Your task to perform on an android device: turn off wifi Image 0: 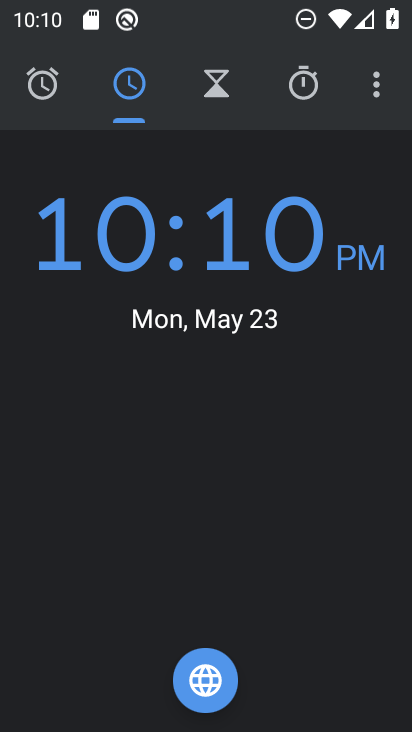
Step 0: press home button
Your task to perform on an android device: turn off wifi Image 1: 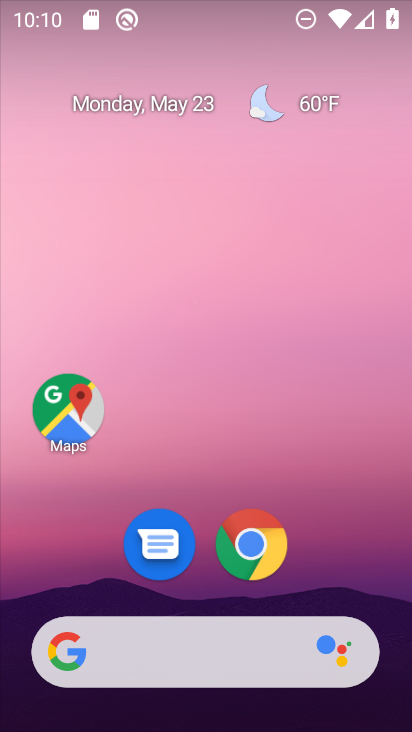
Step 1: drag from (334, 536) to (186, 205)
Your task to perform on an android device: turn off wifi Image 2: 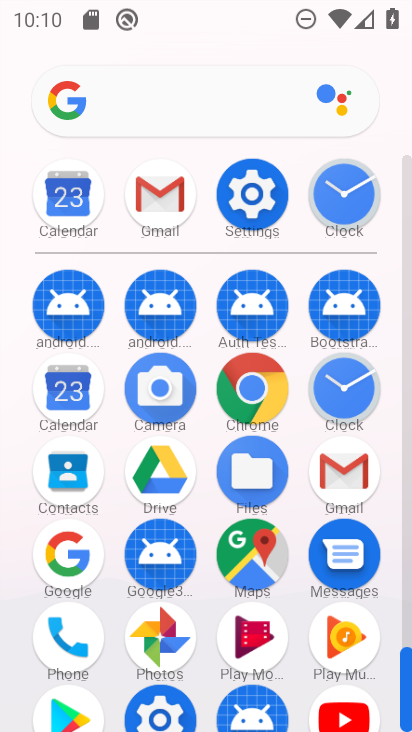
Step 2: click (246, 188)
Your task to perform on an android device: turn off wifi Image 3: 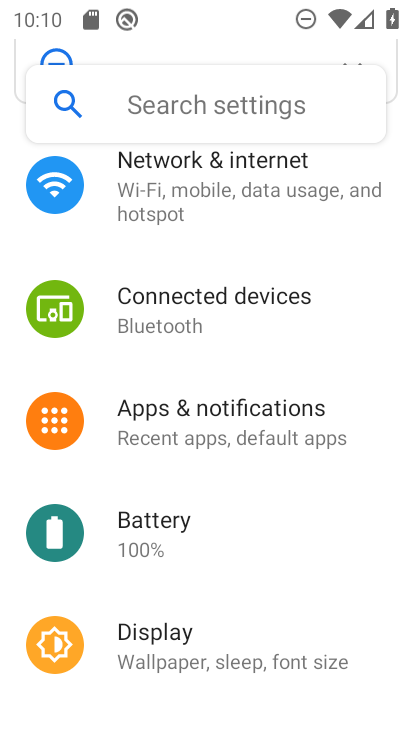
Step 3: click (217, 199)
Your task to perform on an android device: turn off wifi Image 4: 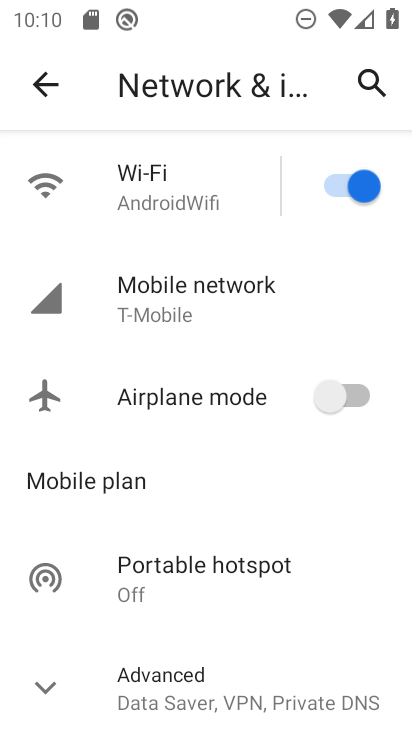
Step 4: click (354, 183)
Your task to perform on an android device: turn off wifi Image 5: 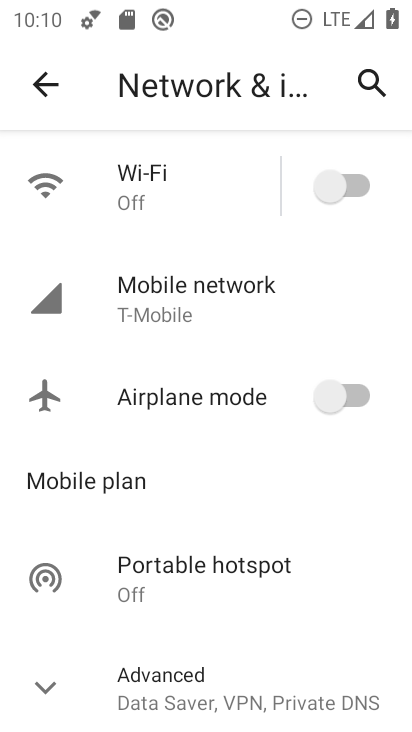
Step 5: task complete